Your task to perform on an android device: turn off javascript in the chrome app Image 0: 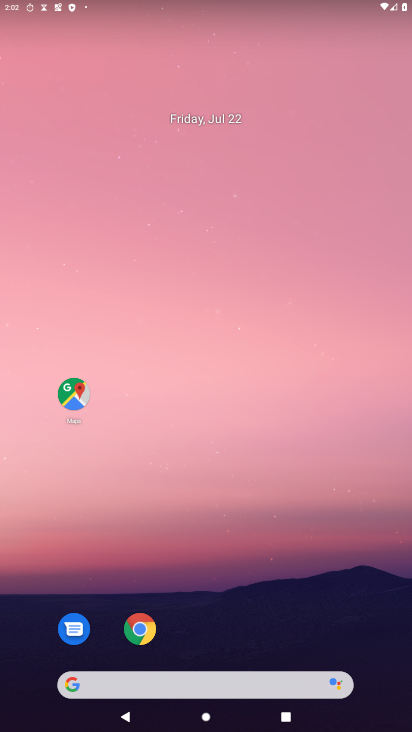
Step 0: drag from (260, 694) to (245, 237)
Your task to perform on an android device: turn off javascript in the chrome app Image 1: 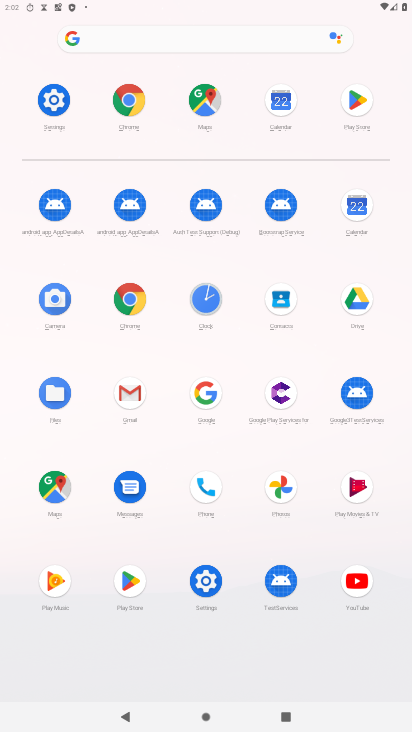
Step 1: click (124, 302)
Your task to perform on an android device: turn off javascript in the chrome app Image 2: 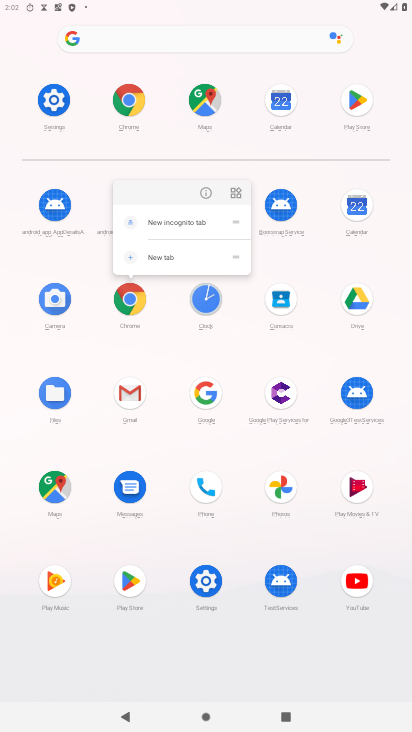
Step 2: click (205, 575)
Your task to perform on an android device: turn off javascript in the chrome app Image 3: 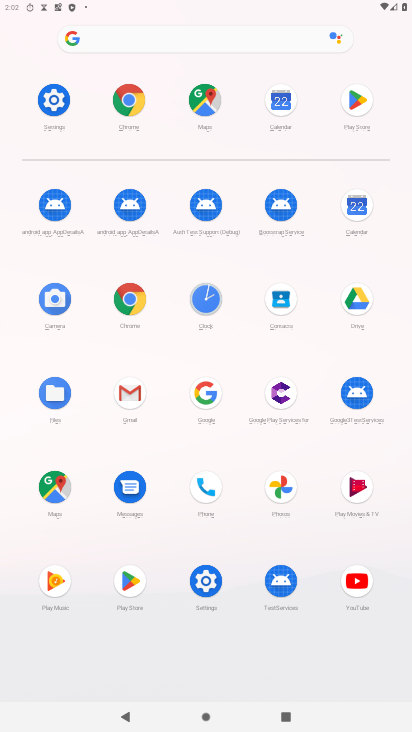
Step 3: click (124, 302)
Your task to perform on an android device: turn off javascript in the chrome app Image 4: 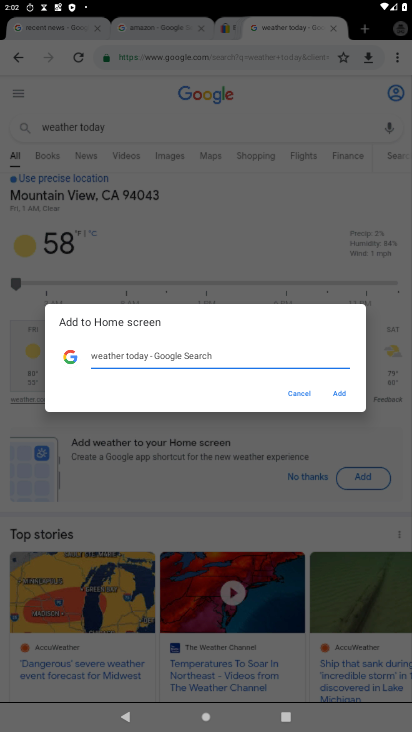
Step 4: drag from (221, 234) to (181, 542)
Your task to perform on an android device: turn off javascript in the chrome app Image 5: 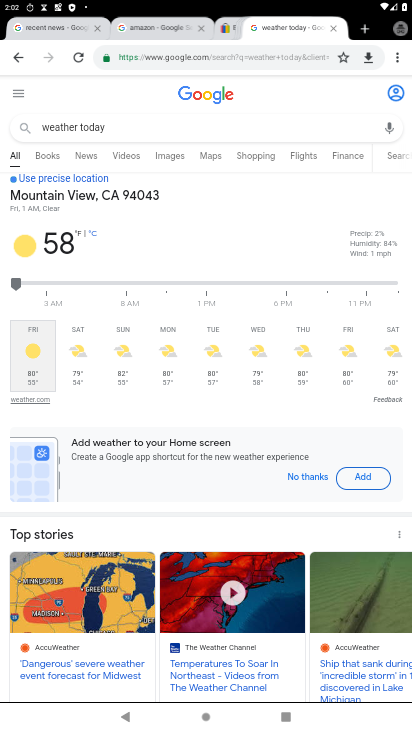
Step 5: drag from (395, 58) to (278, 359)
Your task to perform on an android device: turn off javascript in the chrome app Image 6: 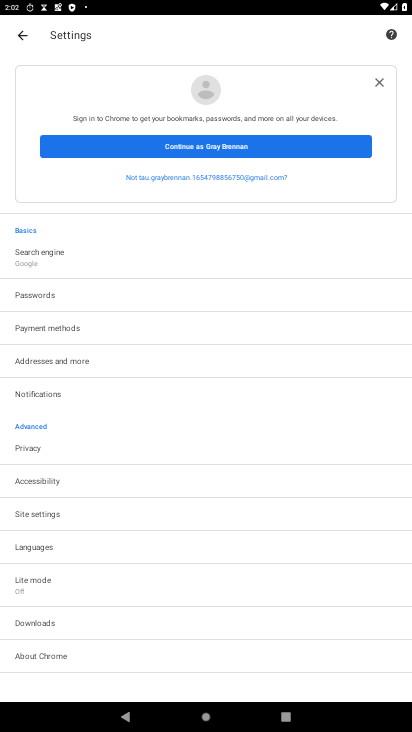
Step 6: drag from (240, 612) to (281, 348)
Your task to perform on an android device: turn off javascript in the chrome app Image 7: 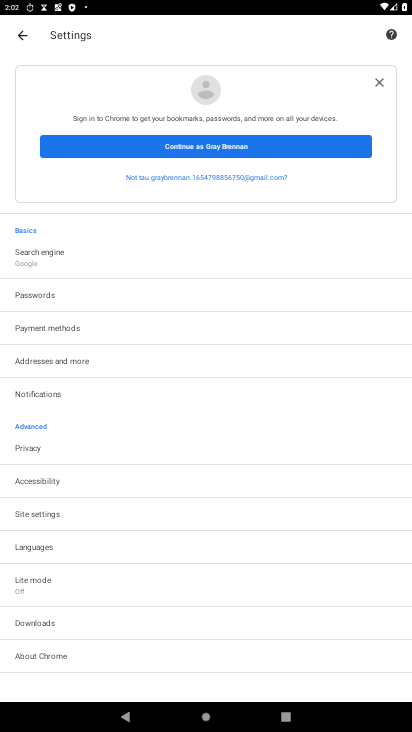
Step 7: click (73, 523)
Your task to perform on an android device: turn off javascript in the chrome app Image 8: 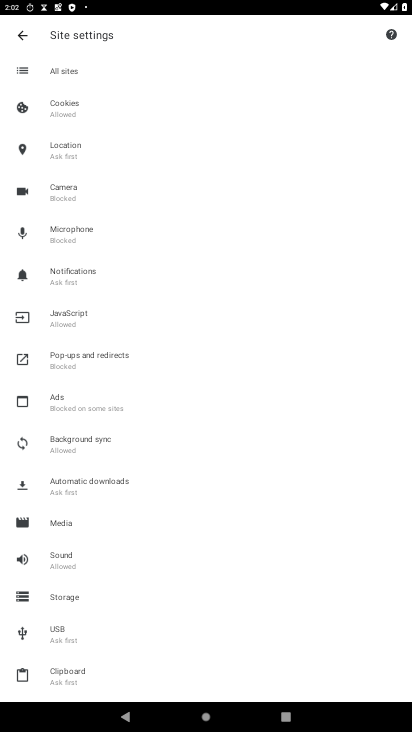
Step 8: click (67, 327)
Your task to perform on an android device: turn off javascript in the chrome app Image 9: 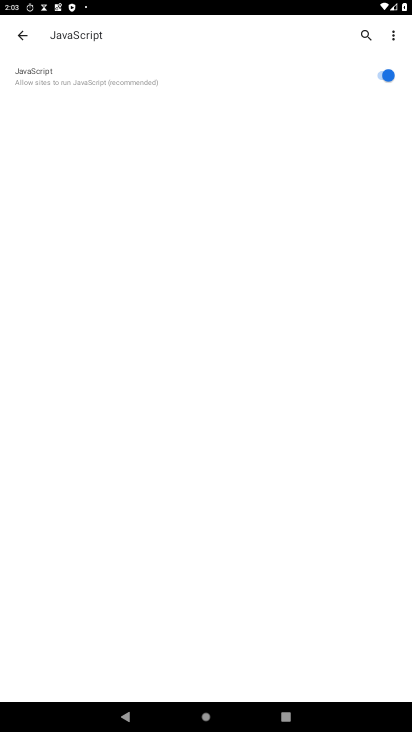
Step 9: click (388, 70)
Your task to perform on an android device: turn off javascript in the chrome app Image 10: 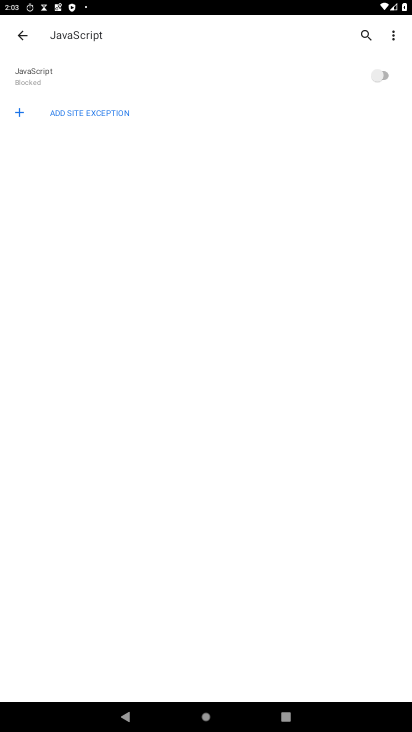
Step 10: task complete